Your task to perform on an android device: Check the news Image 0: 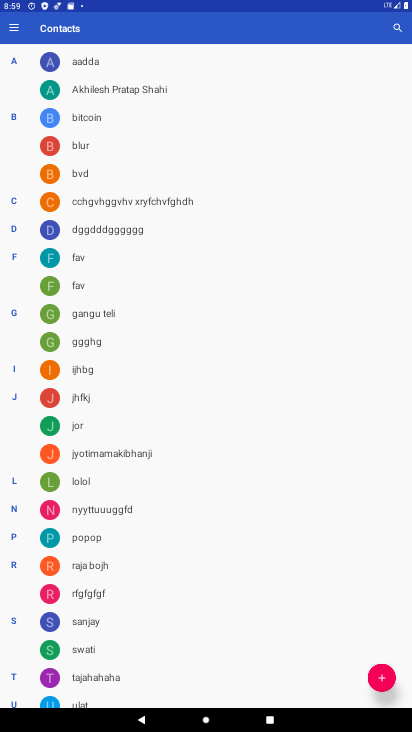
Step 0: press home button
Your task to perform on an android device: Check the news Image 1: 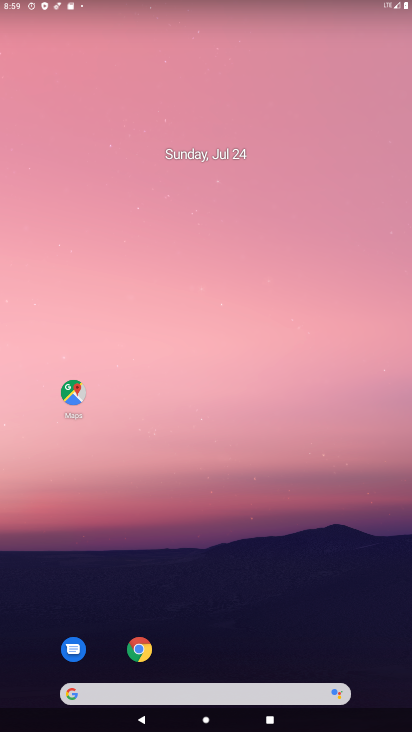
Step 1: click (107, 690)
Your task to perform on an android device: Check the news Image 2: 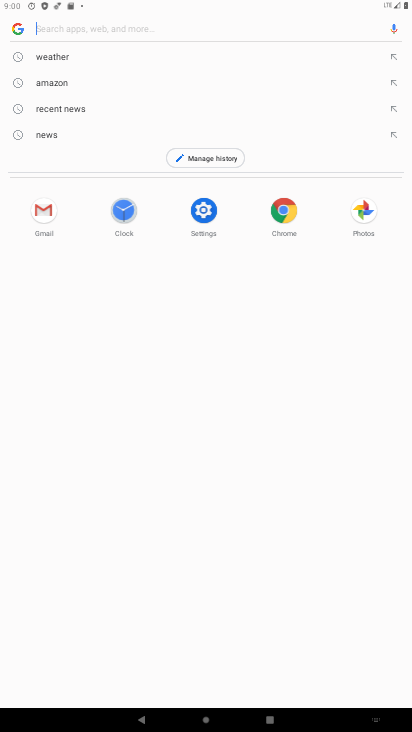
Step 2: type "news"
Your task to perform on an android device: Check the news Image 3: 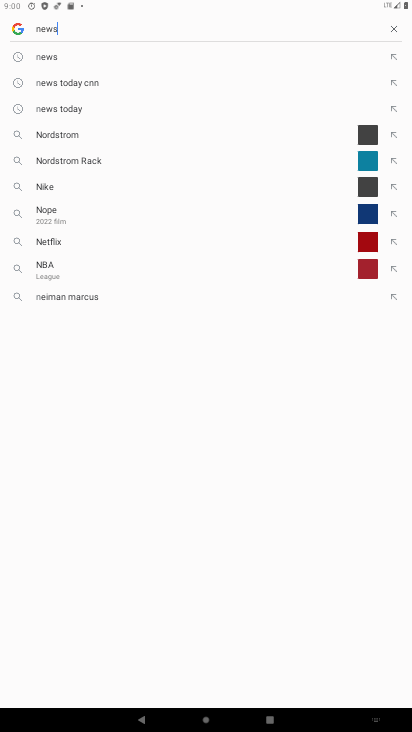
Step 3: type ""
Your task to perform on an android device: Check the news Image 4: 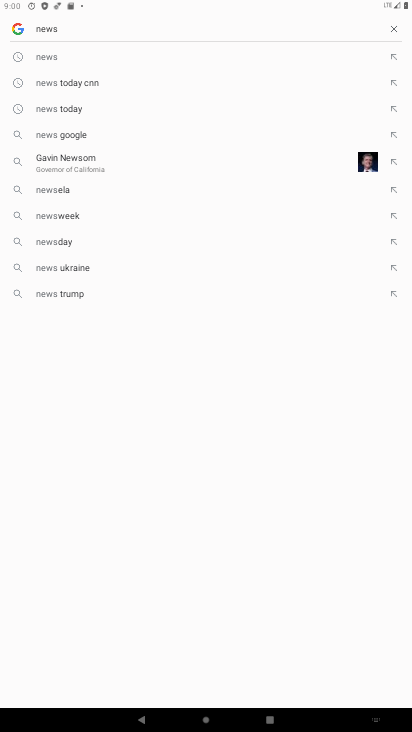
Step 4: click (52, 56)
Your task to perform on an android device: Check the news Image 5: 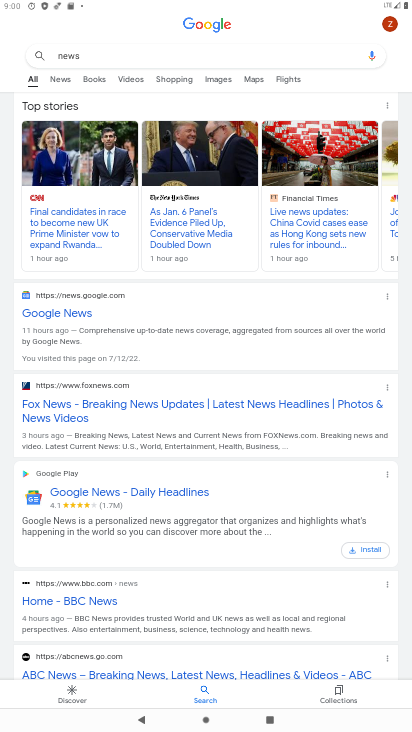
Step 5: task complete